Your task to perform on an android device: change notifications settings Image 0: 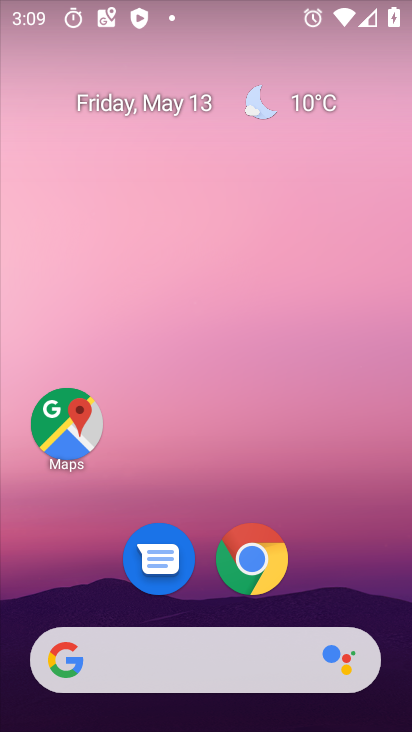
Step 0: drag from (214, 595) to (215, 229)
Your task to perform on an android device: change notifications settings Image 1: 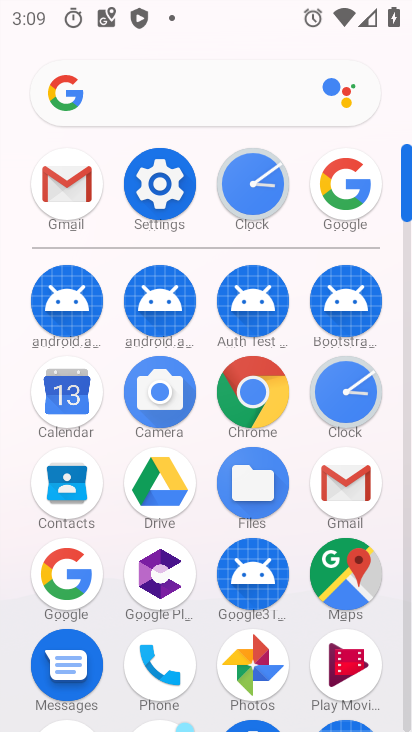
Step 1: click (175, 206)
Your task to perform on an android device: change notifications settings Image 2: 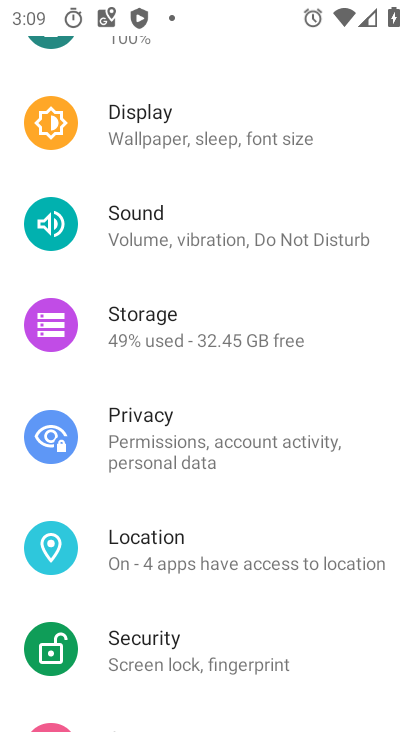
Step 2: drag from (233, 639) to (167, 94)
Your task to perform on an android device: change notifications settings Image 3: 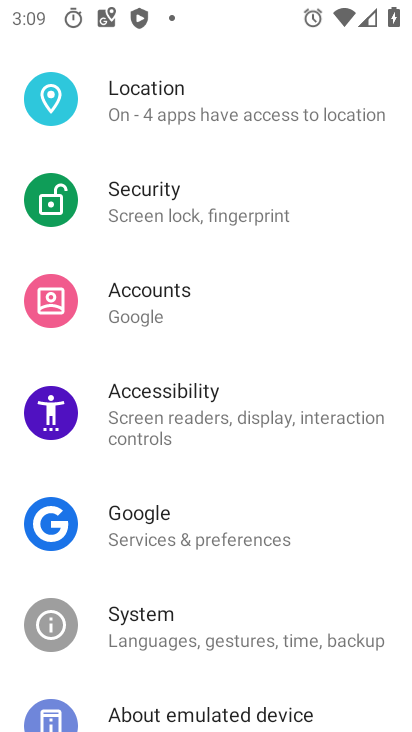
Step 3: drag from (220, 211) to (243, 575)
Your task to perform on an android device: change notifications settings Image 4: 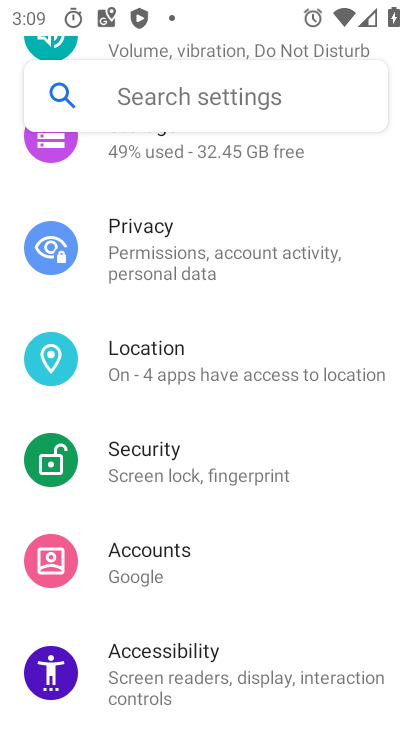
Step 4: drag from (187, 152) to (227, 458)
Your task to perform on an android device: change notifications settings Image 5: 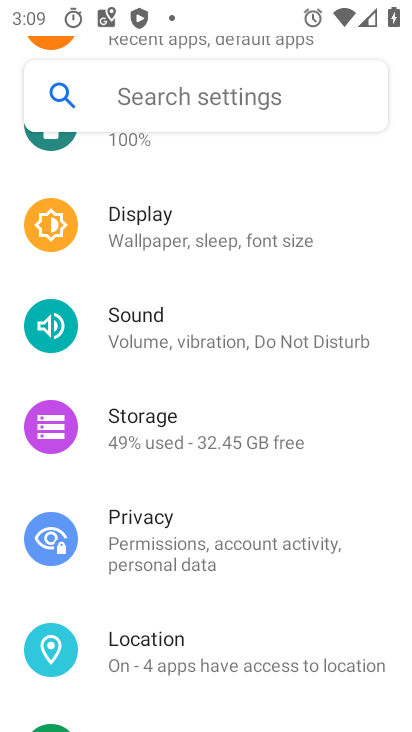
Step 5: drag from (189, 278) to (222, 541)
Your task to perform on an android device: change notifications settings Image 6: 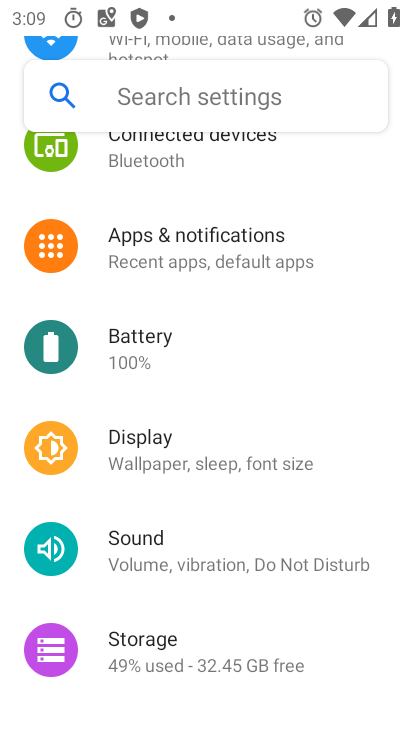
Step 6: click (211, 270)
Your task to perform on an android device: change notifications settings Image 7: 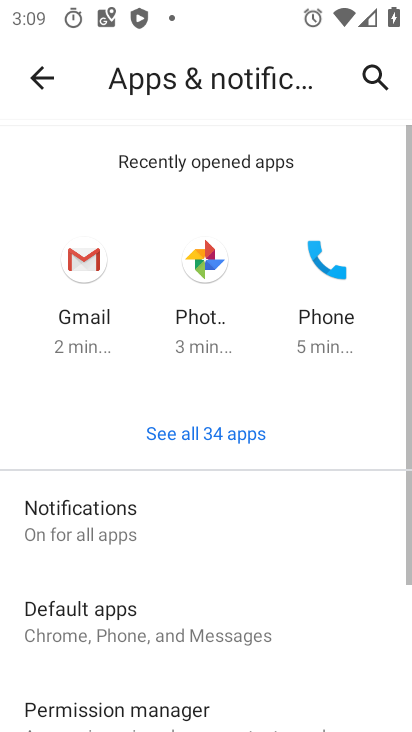
Step 7: drag from (237, 592) to (224, 345)
Your task to perform on an android device: change notifications settings Image 8: 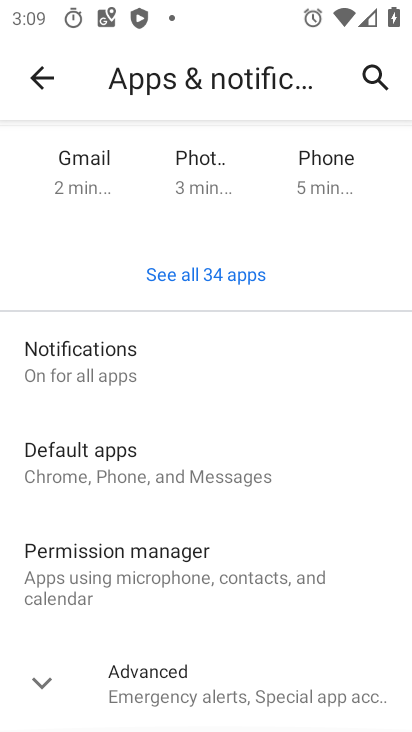
Step 8: click (180, 359)
Your task to perform on an android device: change notifications settings Image 9: 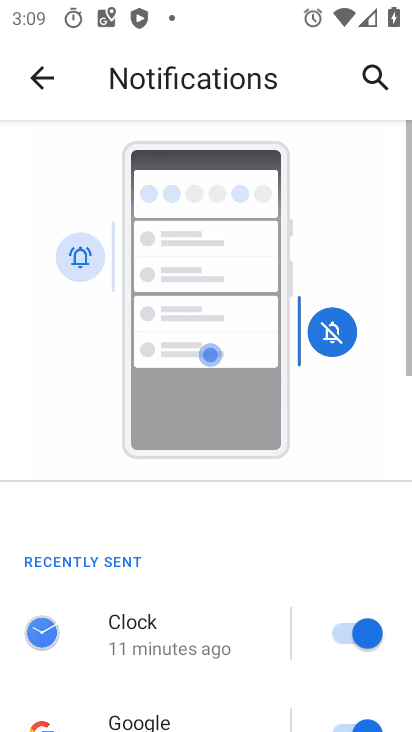
Step 9: drag from (279, 561) to (278, 161)
Your task to perform on an android device: change notifications settings Image 10: 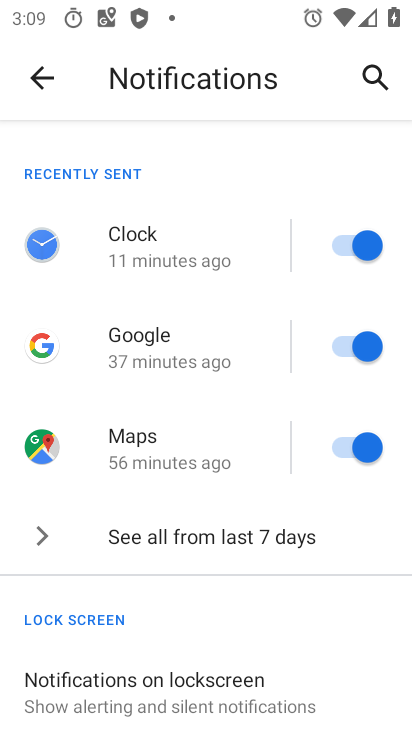
Step 10: click (341, 458)
Your task to perform on an android device: change notifications settings Image 11: 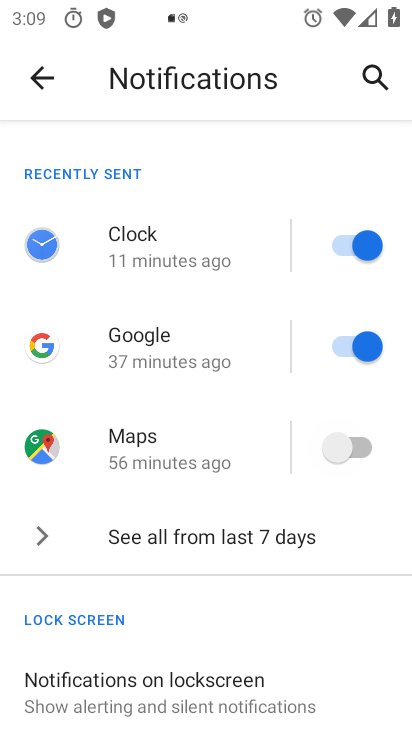
Step 11: click (336, 350)
Your task to perform on an android device: change notifications settings Image 12: 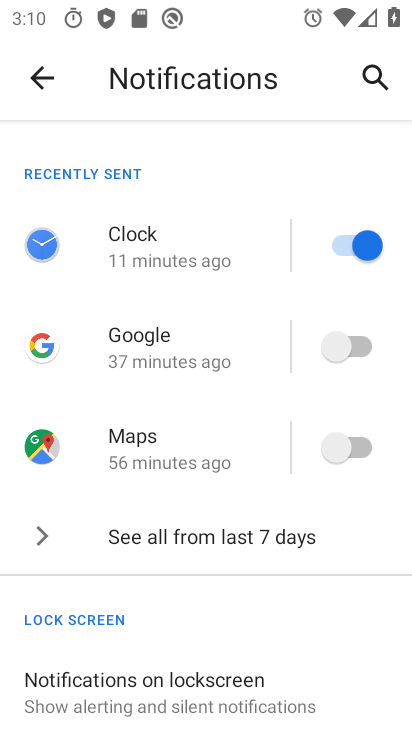
Step 12: task complete